Your task to perform on an android device: Do I have any events this weekend? Image 0: 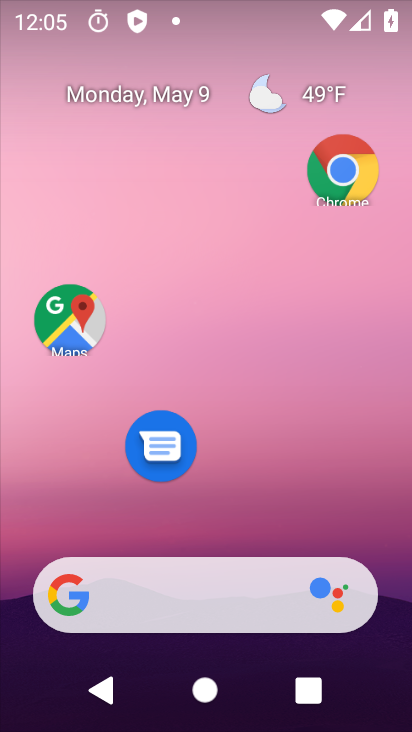
Step 0: drag from (265, 660) to (348, 258)
Your task to perform on an android device: Do I have any events this weekend? Image 1: 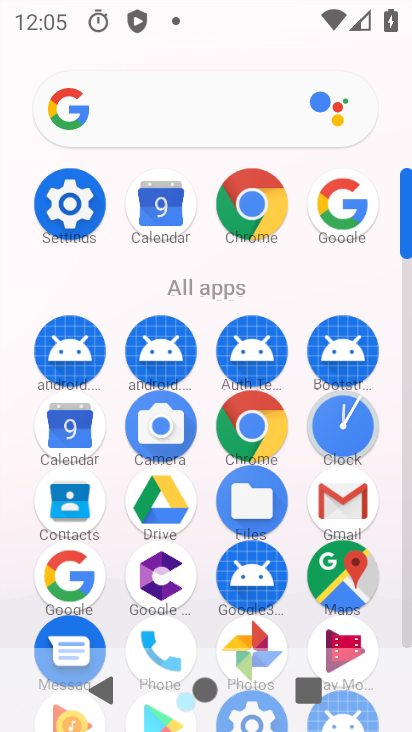
Step 1: click (173, 223)
Your task to perform on an android device: Do I have any events this weekend? Image 2: 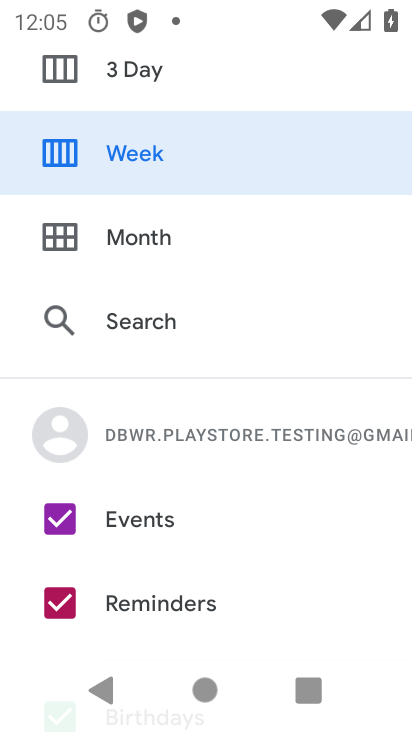
Step 2: click (70, 136)
Your task to perform on an android device: Do I have any events this weekend? Image 3: 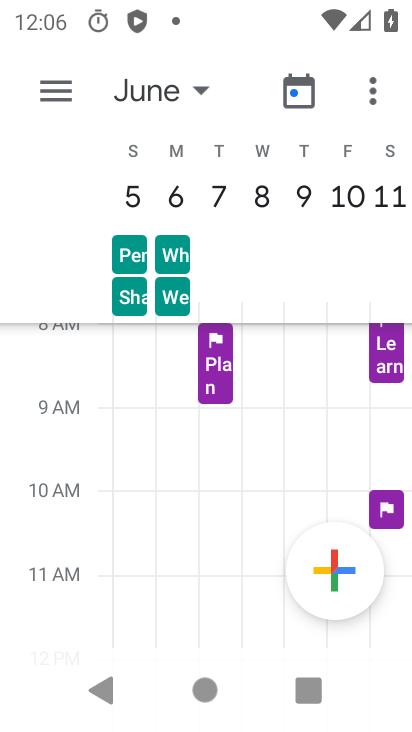
Step 3: task complete